Your task to perform on an android device: Go to privacy settings Image 0: 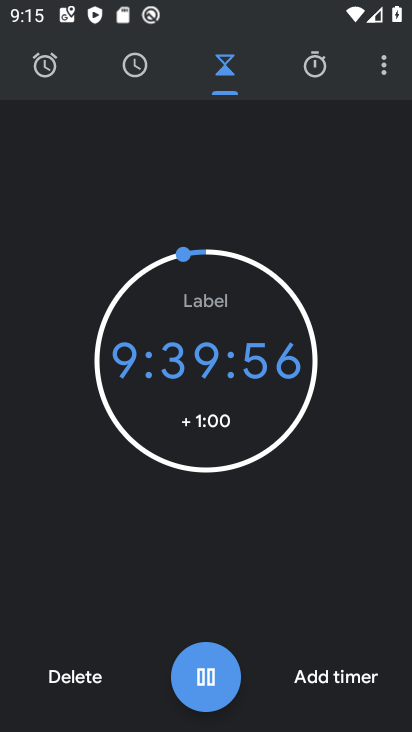
Step 0: press home button
Your task to perform on an android device: Go to privacy settings Image 1: 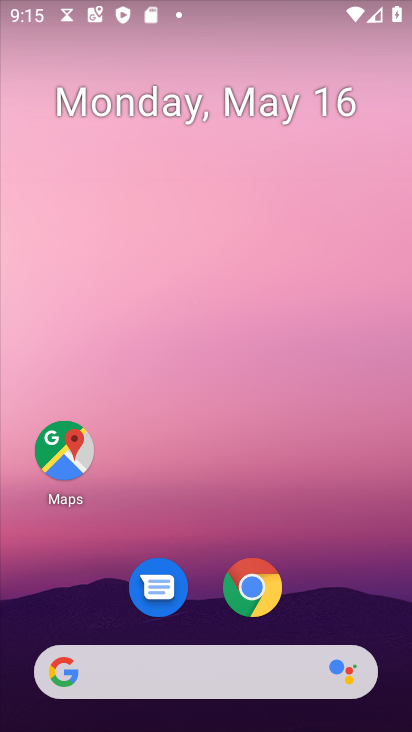
Step 1: click (331, 618)
Your task to perform on an android device: Go to privacy settings Image 2: 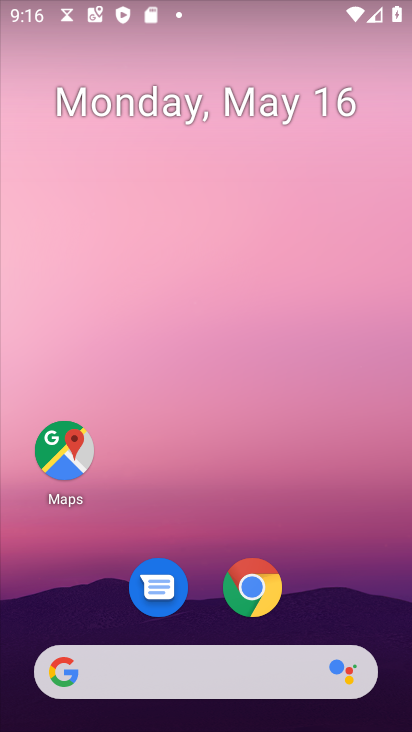
Step 2: drag from (331, 618) to (243, 178)
Your task to perform on an android device: Go to privacy settings Image 3: 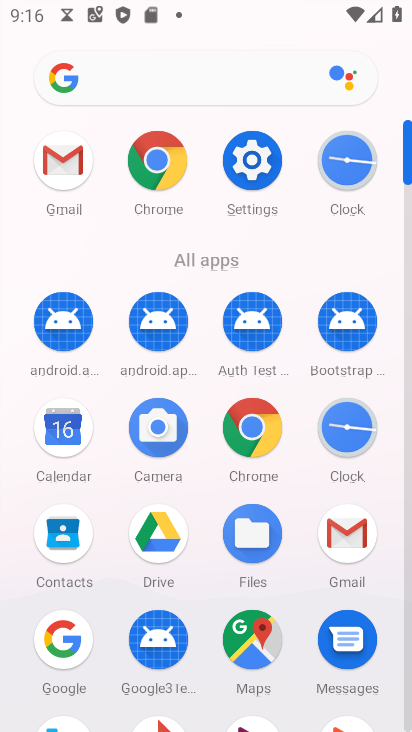
Step 3: click (243, 174)
Your task to perform on an android device: Go to privacy settings Image 4: 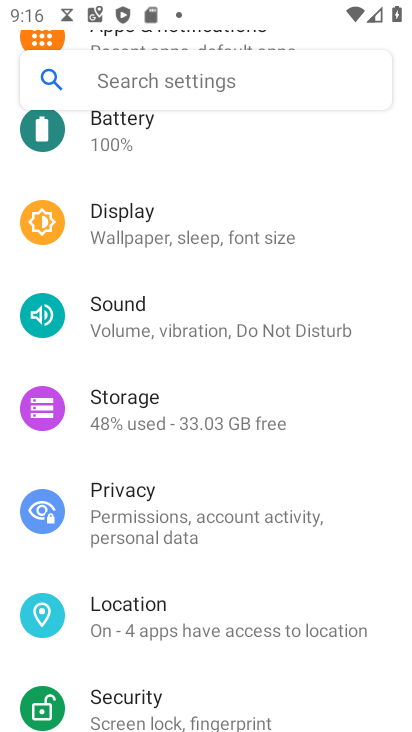
Step 4: click (205, 511)
Your task to perform on an android device: Go to privacy settings Image 5: 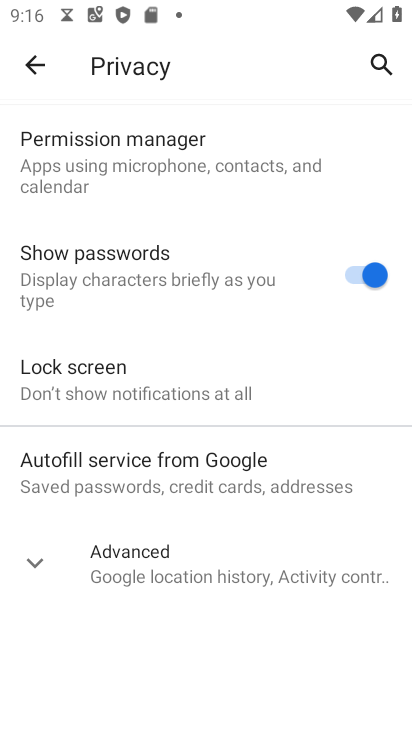
Step 5: click (212, 567)
Your task to perform on an android device: Go to privacy settings Image 6: 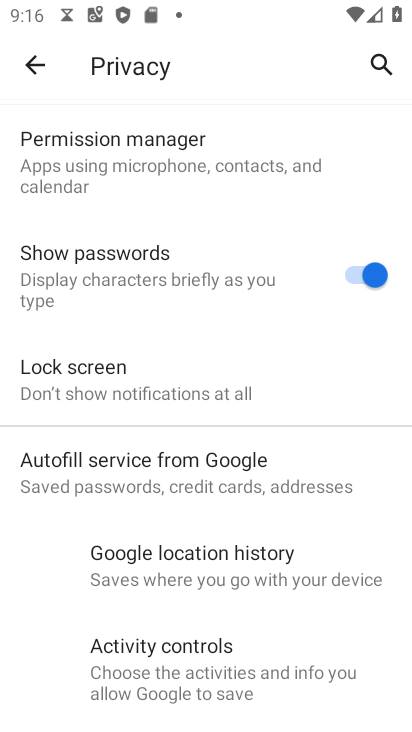
Step 6: task complete